Your task to perform on an android device: turn on javascript in the chrome app Image 0: 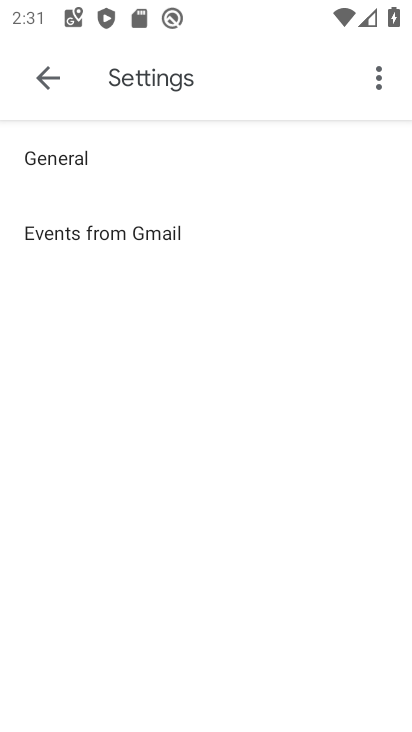
Step 0: drag from (275, 544) to (256, 419)
Your task to perform on an android device: turn on javascript in the chrome app Image 1: 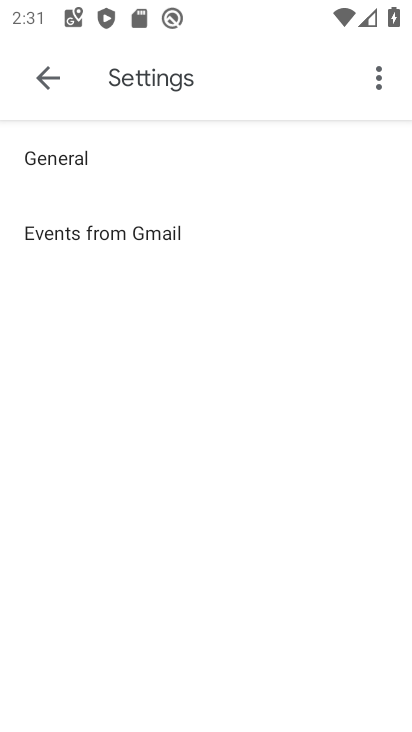
Step 1: press home button
Your task to perform on an android device: turn on javascript in the chrome app Image 2: 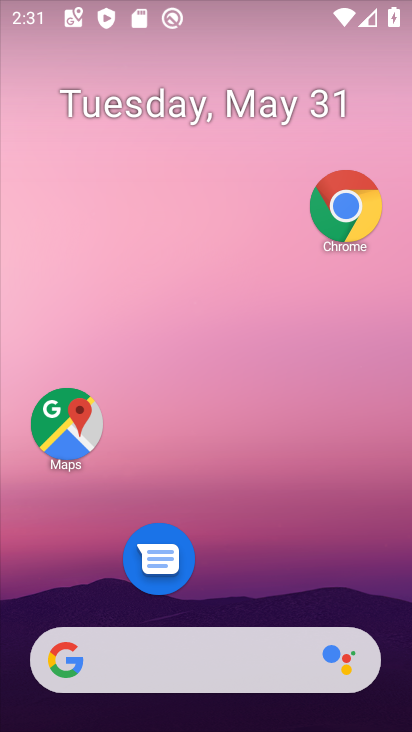
Step 2: drag from (241, 543) to (193, 1)
Your task to perform on an android device: turn on javascript in the chrome app Image 3: 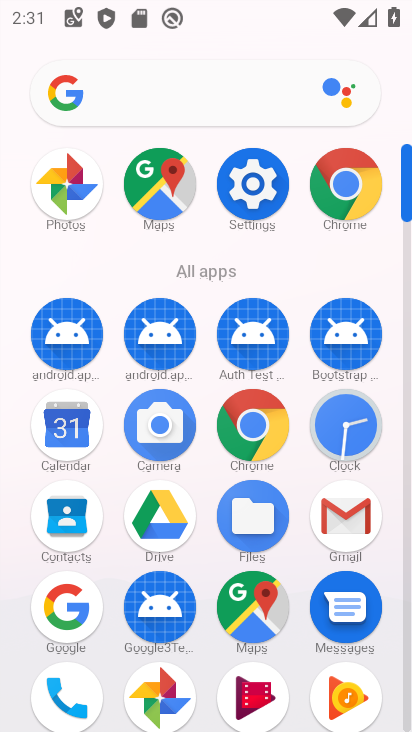
Step 3: click (256, 431)
Your task to perform on an android device: turn on javascript in the chrome app Image 4: 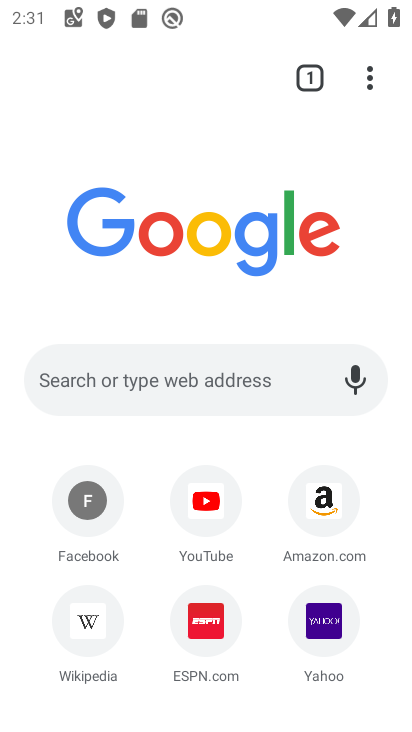
Step 4: click (381, 77)
Your task to perform on an android device: turn on javascript in the chrome app Image 5: 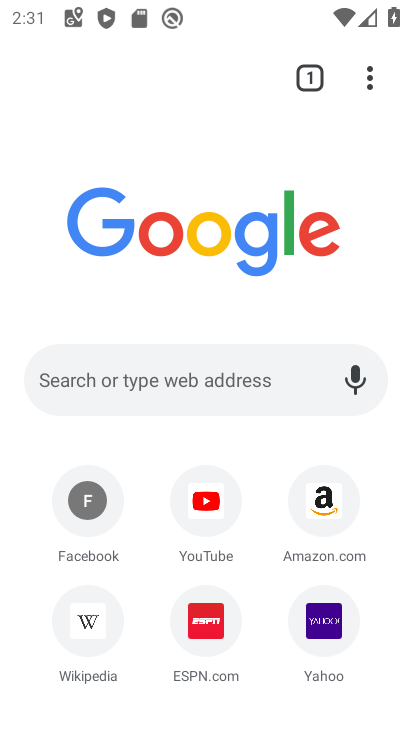
Step 5: click (369, 82)
Your task to perform on an android device: turn on javascript in the chrome app Image 6: 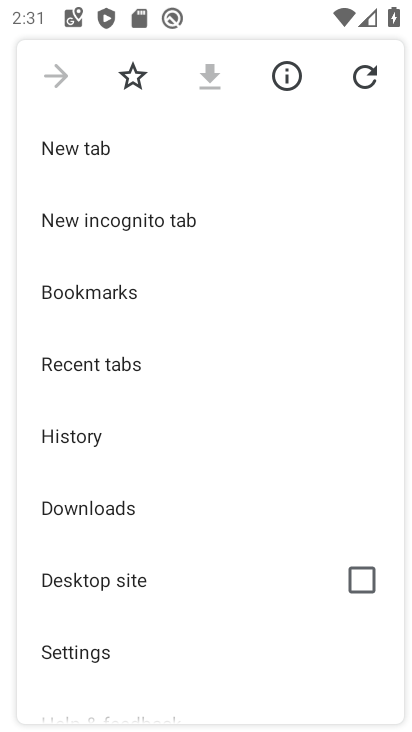
Step 6: drag from (291, 529) to (179, 226)
Your task to perform on an android device: turn on javascript in the chrome app Image 7: 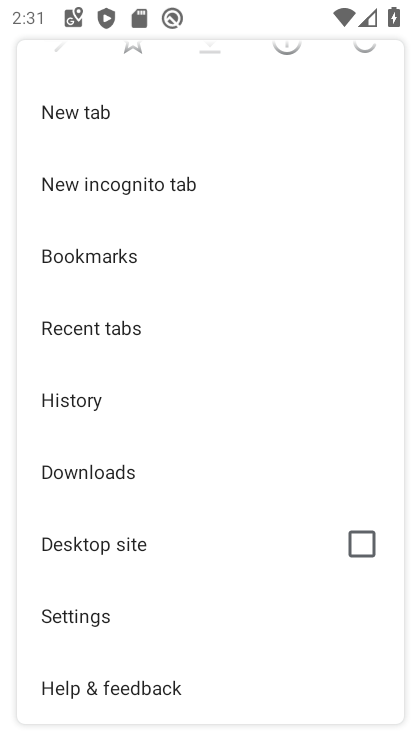
Step 7: click (115, 618)
Your task to perform on an android device: turn on javascript in the chrome app Image 8: 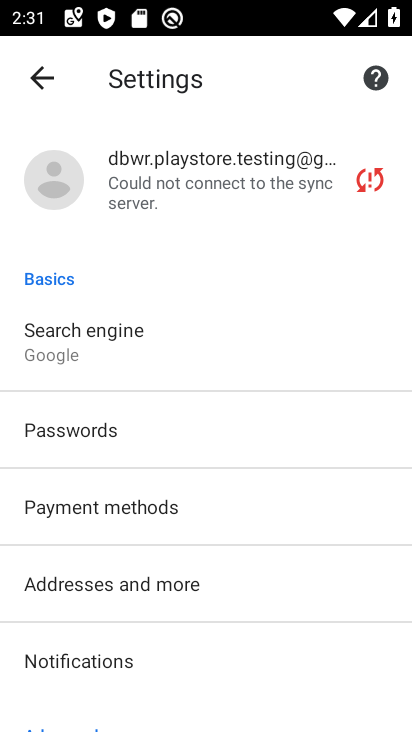
Step 8: drag from (108, 628) to (116, 333)
Your task to perform on an android device: turn on javascript in the chrome app Image 9: 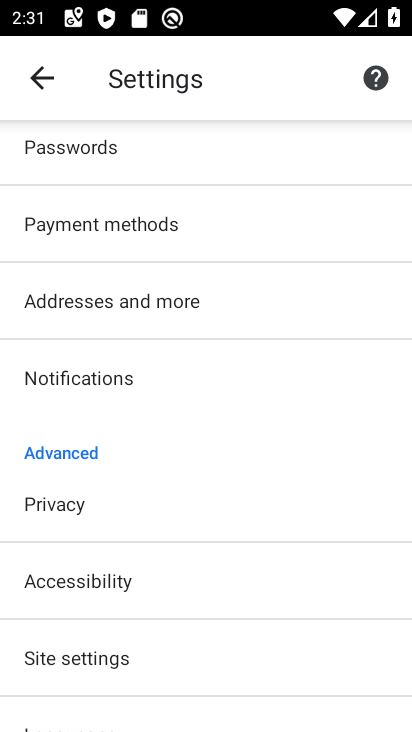
Step 9: click (99, 645)
Your task to perform on an android device: turn on javascript in the chrome app Image 10: 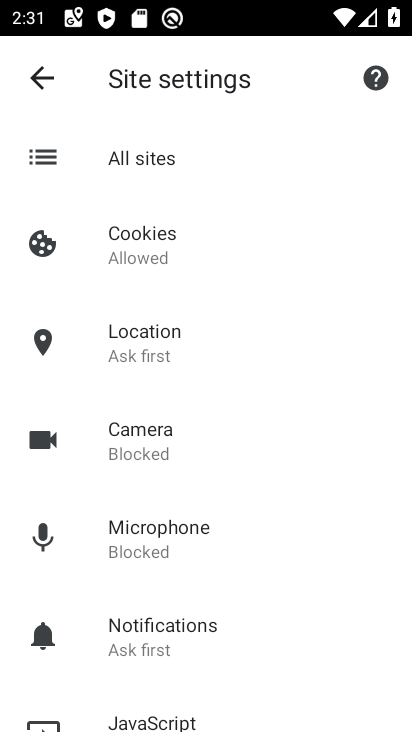
Step 10: task complete